Your task to perform on an android device: turn off sleep mode Image 0: 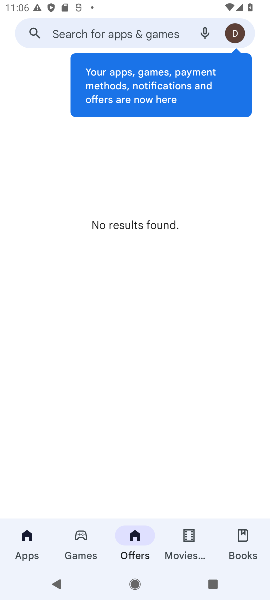
Step 0: press home button
Your task to perform on an android device: turn off sleep mode Image 1: 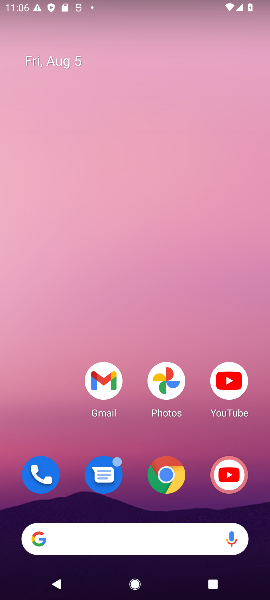
Step 1: drag from (145, 480) to (140, 20)
Your task to perform on an android device: turn off sleep mode Image 2: 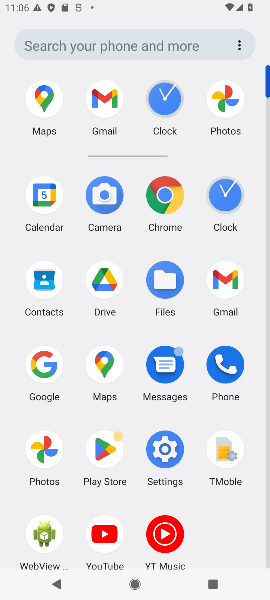
Step 2: click (165, 451)
Your task to perform on an android device: turn off sleep mode Image 3: 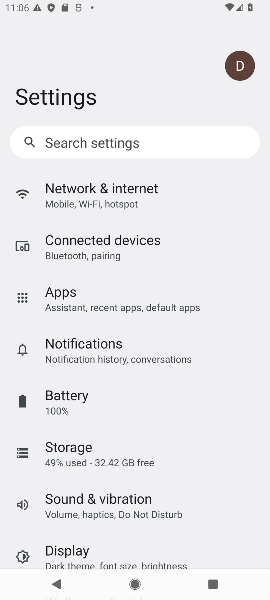
Step 3: click (127, 138)
Your task to perform on an android device: turn off sleep mode Image 4: 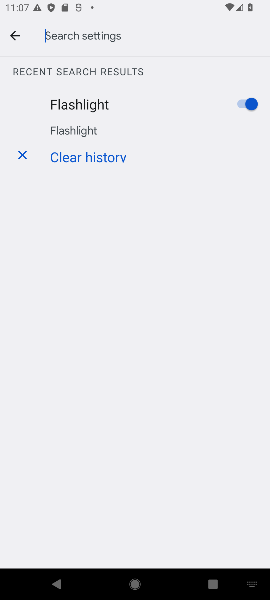
Step 4: type "sleep mode"
Your task to perform on an android device: turn off sleep mode Image 5: 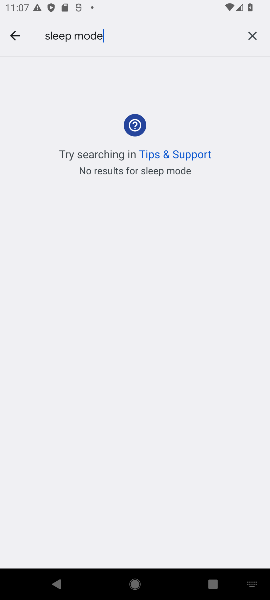
Step 5: task complete